Your task to perform on an android device: toggle priority inbox in the gmail app Image 0: 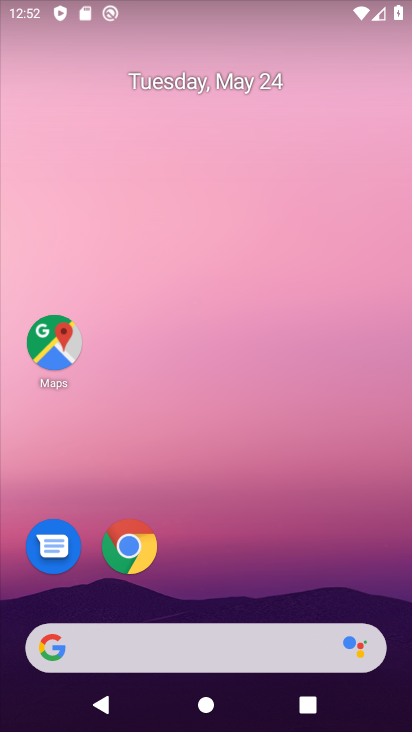
Step 0: drag from (188, 600) to (234, 197)
Your task to perform on an android device: toggle priority inbox in the gmail app Image 1: 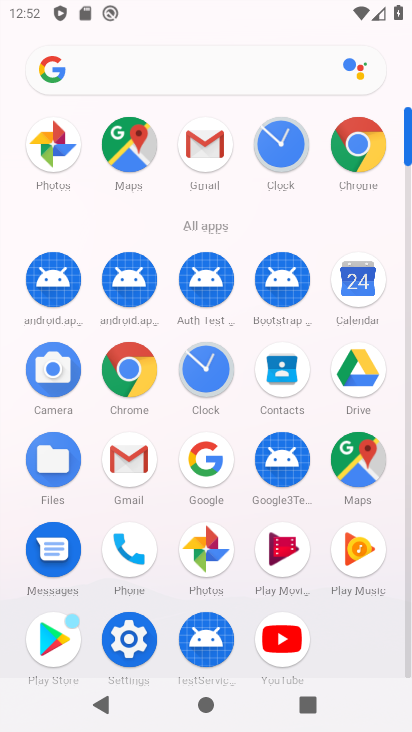
Step 1: click (127, 463)
Your task to perform on an android device: toggle priority inbox in the gmail app Image 2: 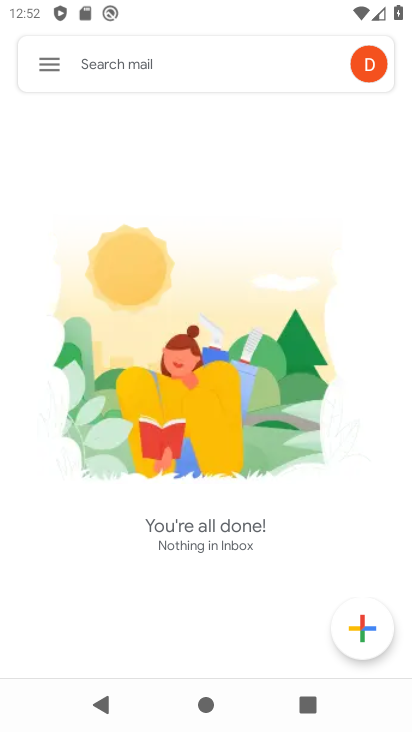
Step 2: click (50, 58)
Your task to perform on an android device: toggle priority inbox in the gmail app Image 3: 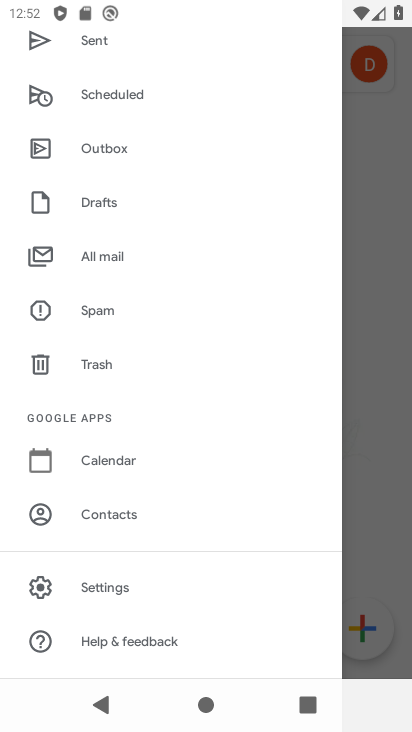
Step 3: drag from (141, 591) to (266, 270)
Your task to perform on an android device: toggle priority inbox in the gmail app Image 4: 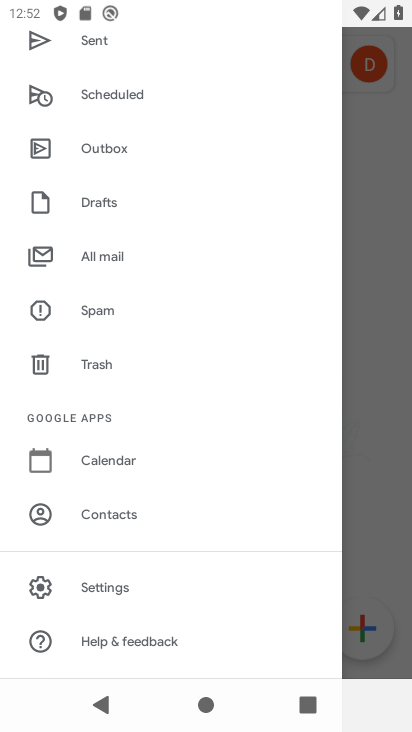
Step 4: click (160, 587)
Your task to perform on an android device: toggle priority inbox in the gmail app Image 5: 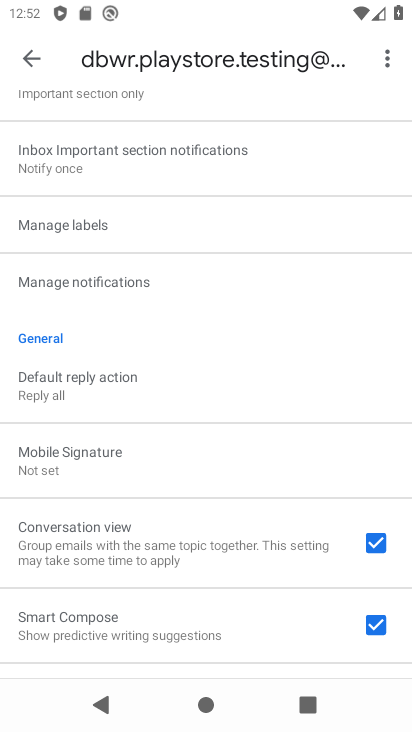
Step 5: drag from (172, 364) to (179, 631)
Your task to perform on an android device: toggle priority inbox in the gmail app Image 6: 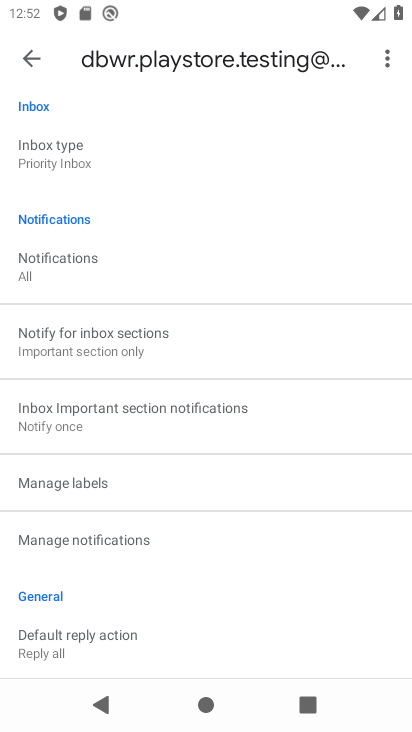
Step 6: click (141, 164)
Your task to perform on an android device: toggle priority inbox in the gmail app Image 7: 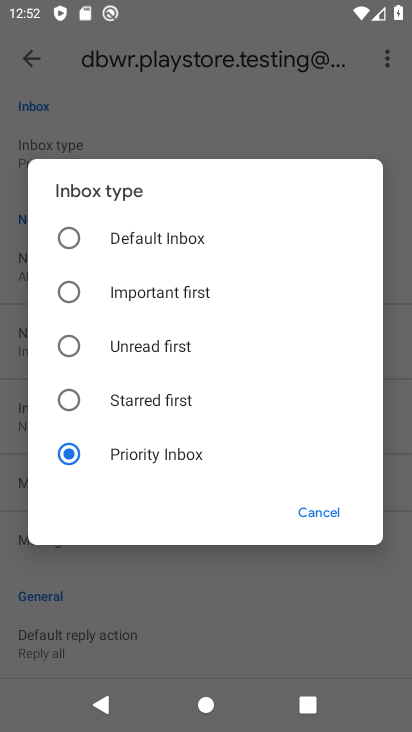
Step 7: click (182, 255)
Your task to perform on an android device: toggle priority inbox in the gmail app Image 8: 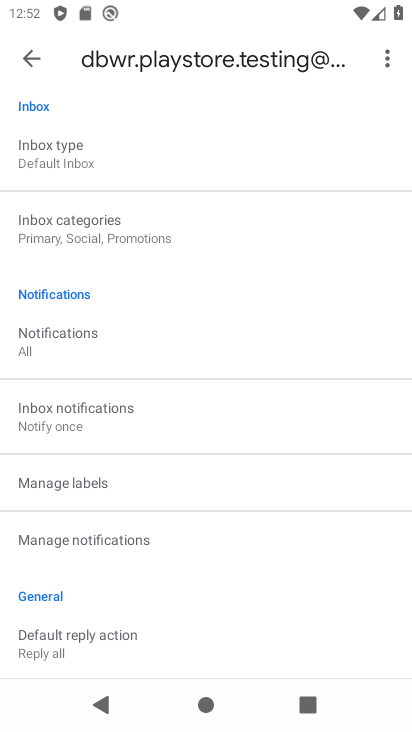
Step 8: task complete